Your task to perform on an android device: turn smart compose on in the gmail app Image 0: 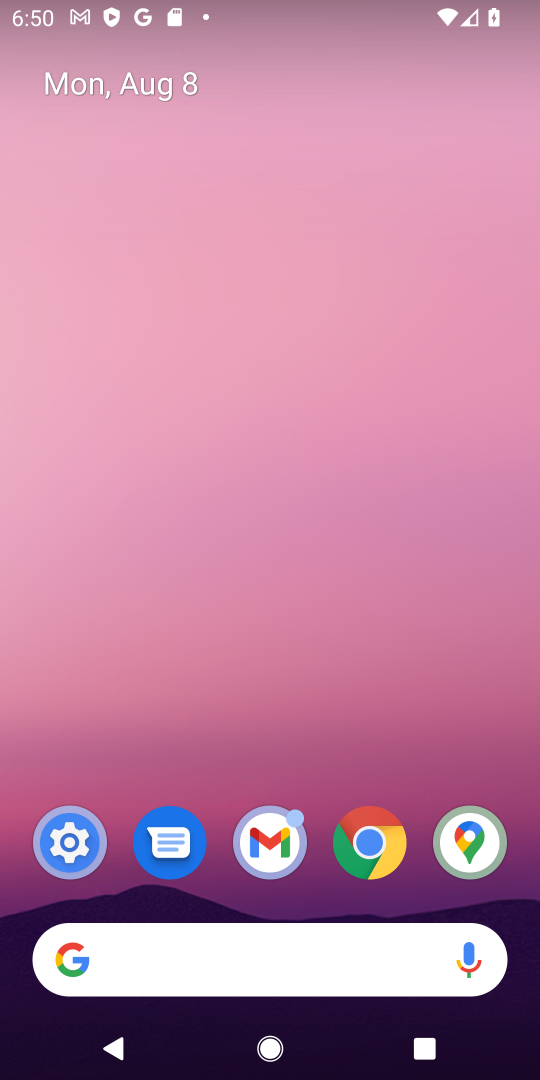
Step 0: drag from (313, 891) to (158, 43)
Your task to perform on an android device: turn smart compose on in the gmail app Image 1: 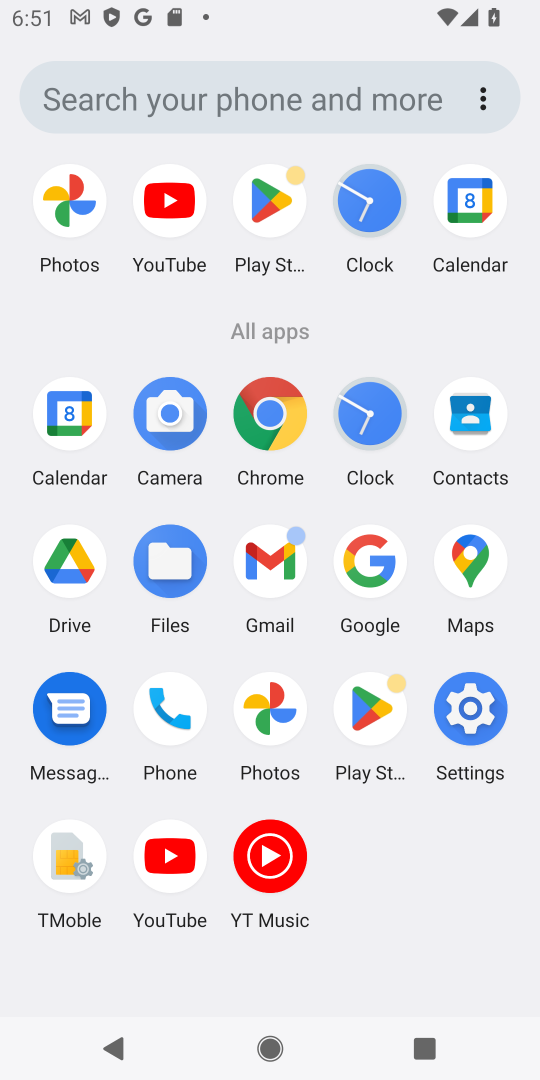
Step 1: click (275, 546)
Your task to perform on an android device: turn smart compose on in the gmail app Image 2: 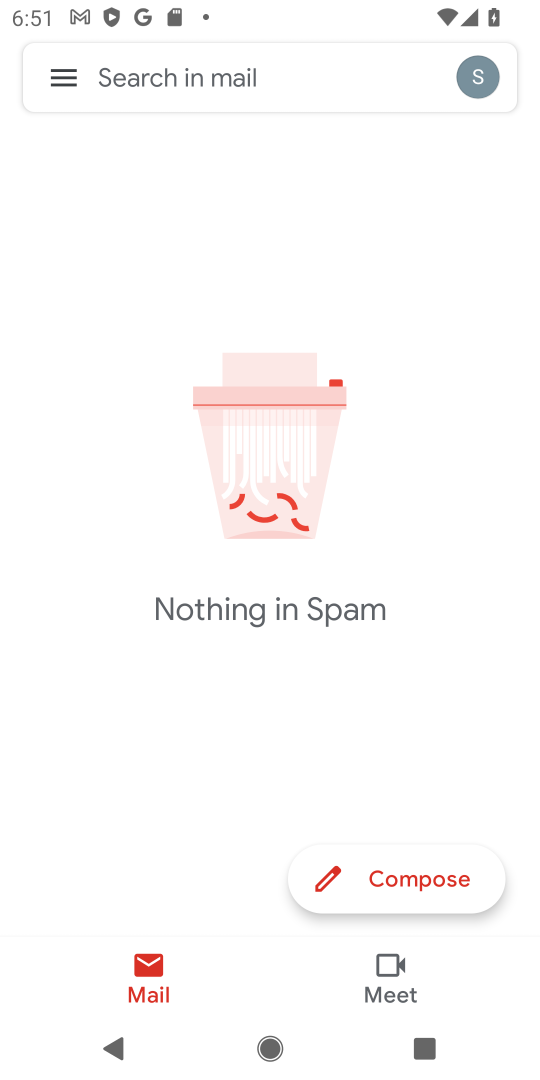
Step 2: click (74, 74)
Your task to perform on an android device: turn smart compose on in the gmail app Image 3: 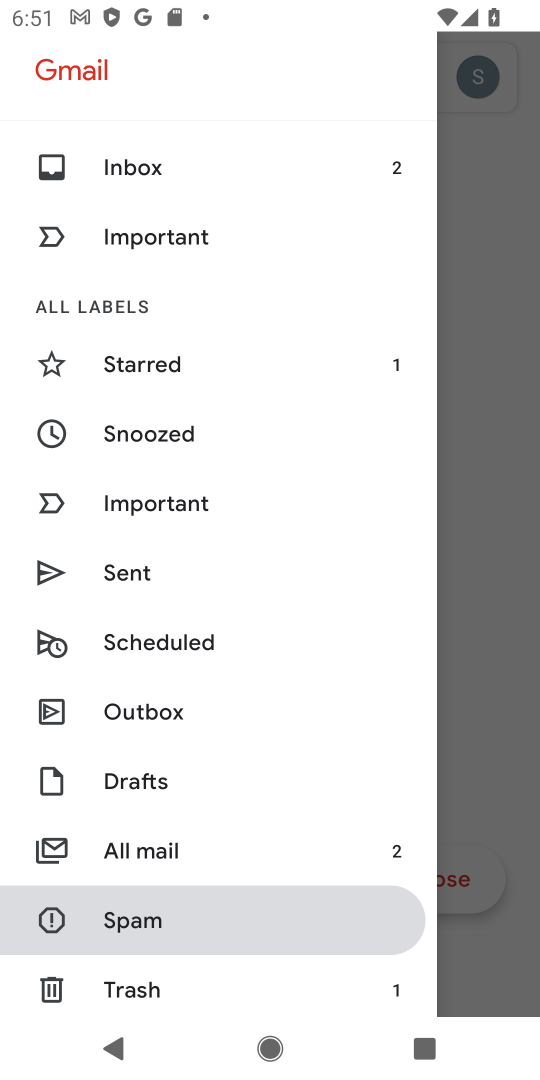
Step 3: drag from (244, 278) to (216, 757)
Your task to perform on an android device: turn smart compose on in the gmail app Image 4: 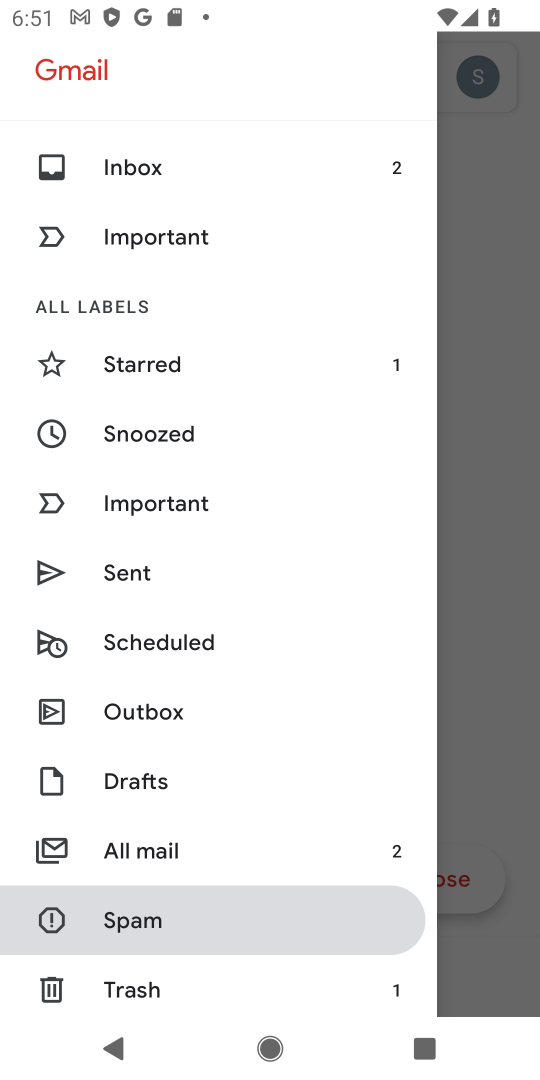
Step 4: drag from (238, 779) to (407, 114)
Your task to perform on an android device: turn smart compose on in the gmail app Image 5: 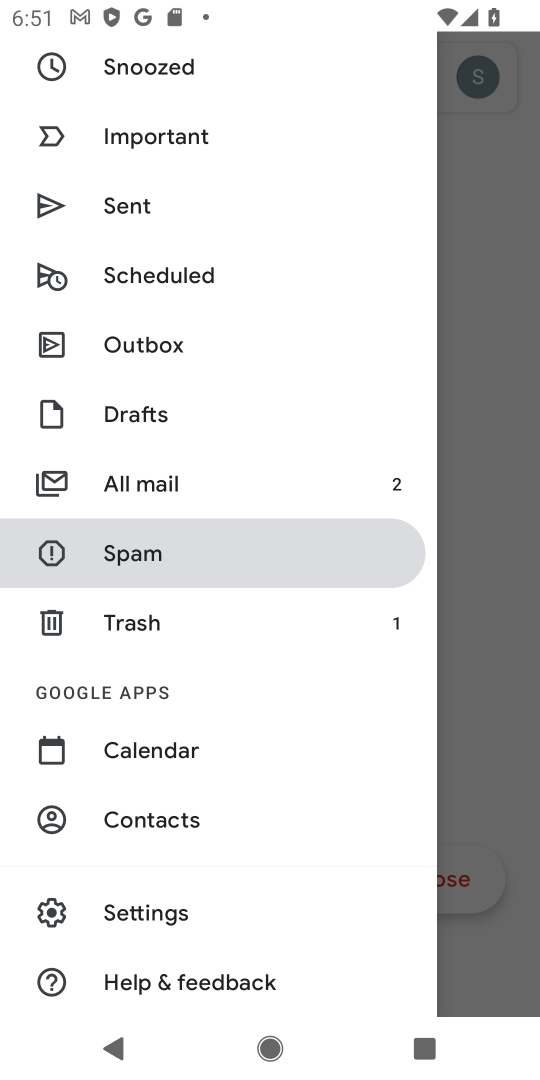
Step 5: click (164, 903)
Your task to perform on an android device: turn smart compose on in the gmail app Image 6: 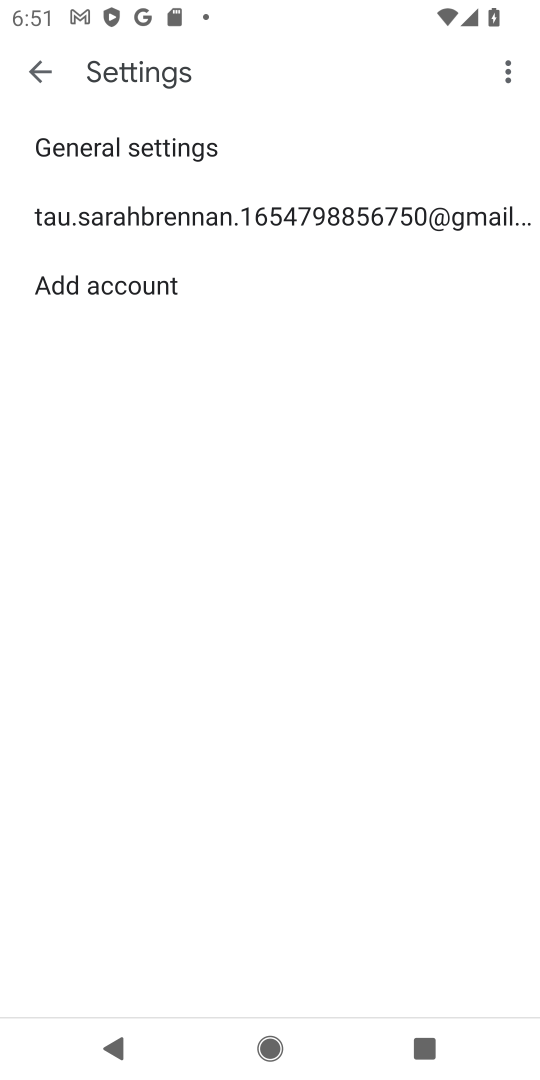
Step 6: click (231, 211)
Your task to perform on an android device: turn smart compose on in the gmail app Image 7: 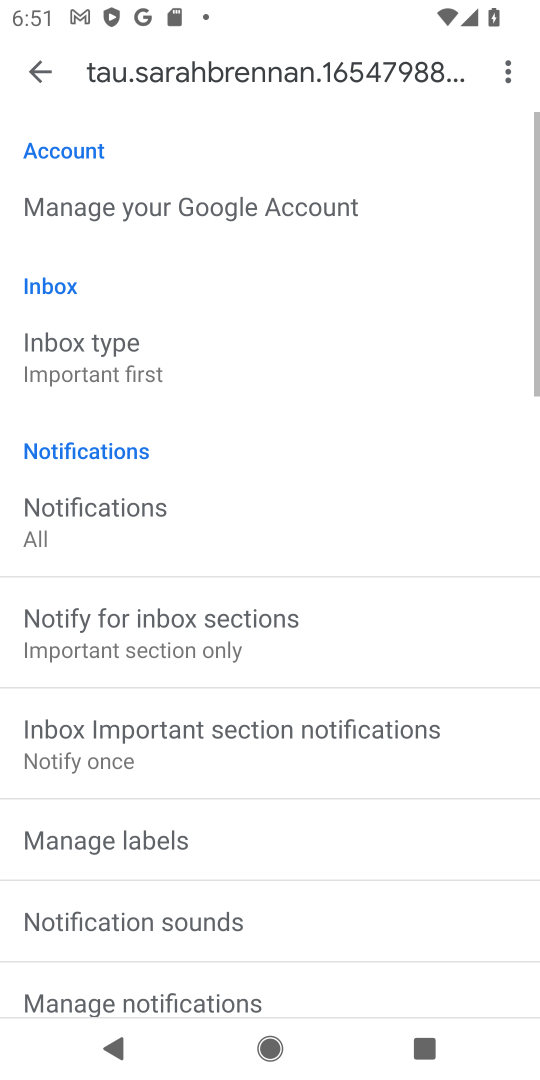
Step 7: task complete